Your task to perform on an android device: install app "Walmart Shopping & Grocery" Image 0: 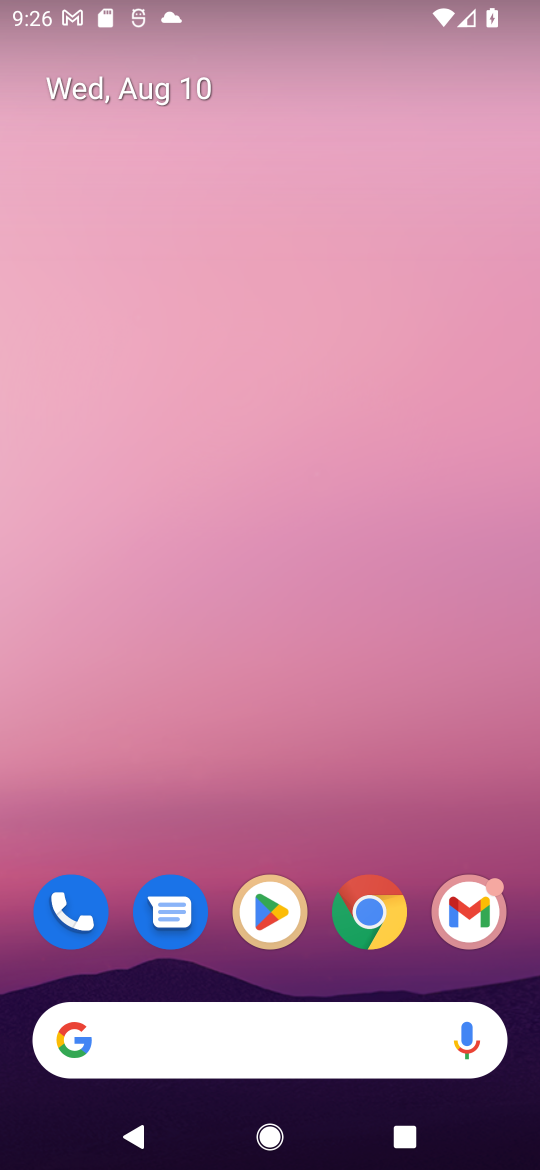
Step 0: drag from (526, 959) to (205, 44)
Your task to perform on an android device: install app "Walmart Shopping & Grocery" Image 1: 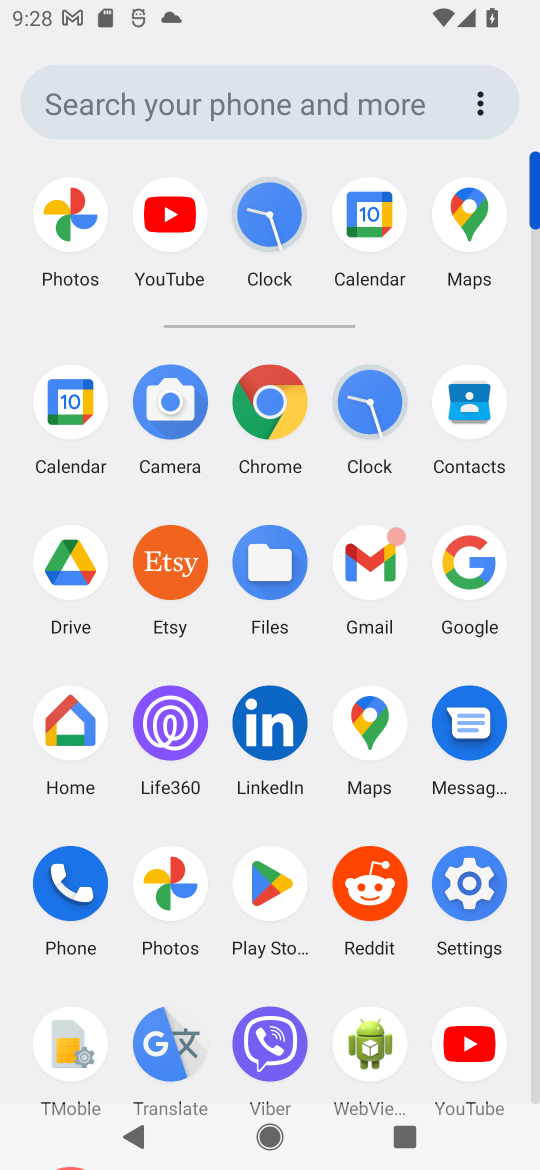
Step 1: click (258, 883)
Your task to perform on an android device: install app "Walmart Shopping & Grocery" Image 2: 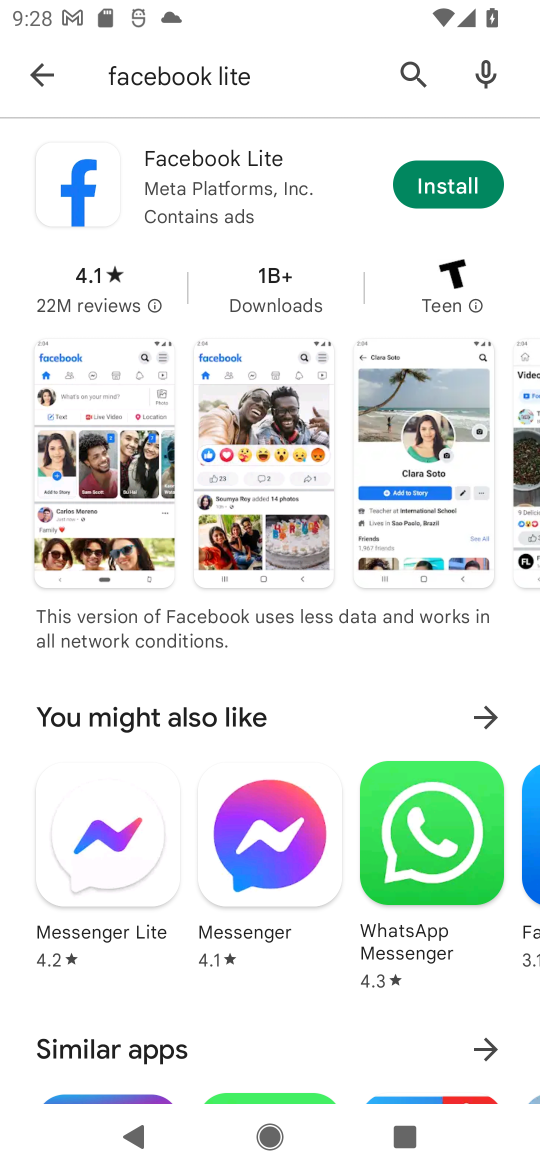
Step 2: press back button
Your task to perform on an android device: install app "Walmart Shopping & Grocery" Image 3: 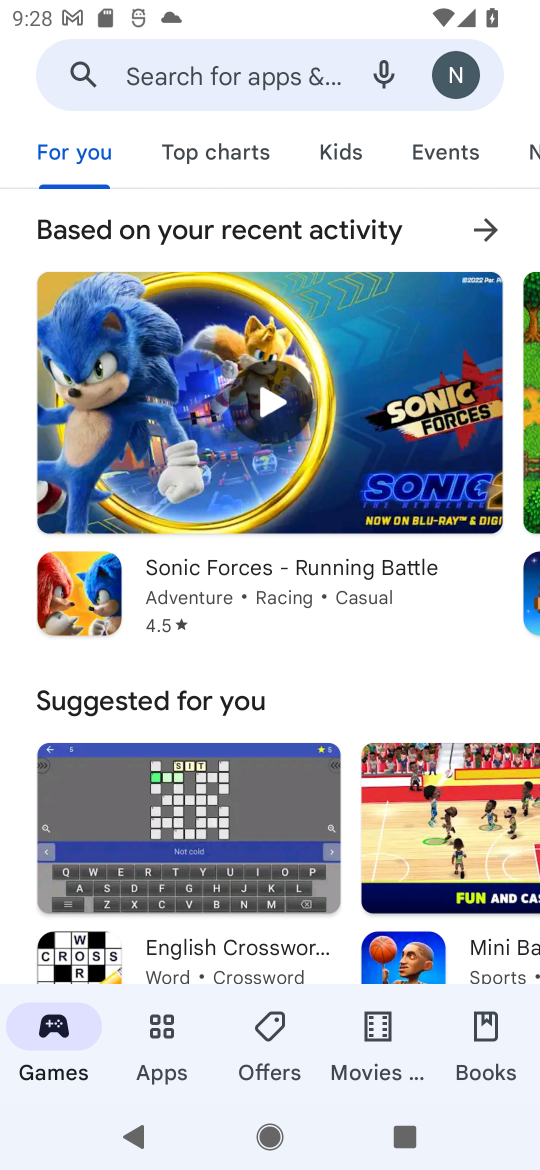
Step 3: click (174, 76)
Your task to perform on an android device: install app "Walmart Shopping & Grocery" Image 4: 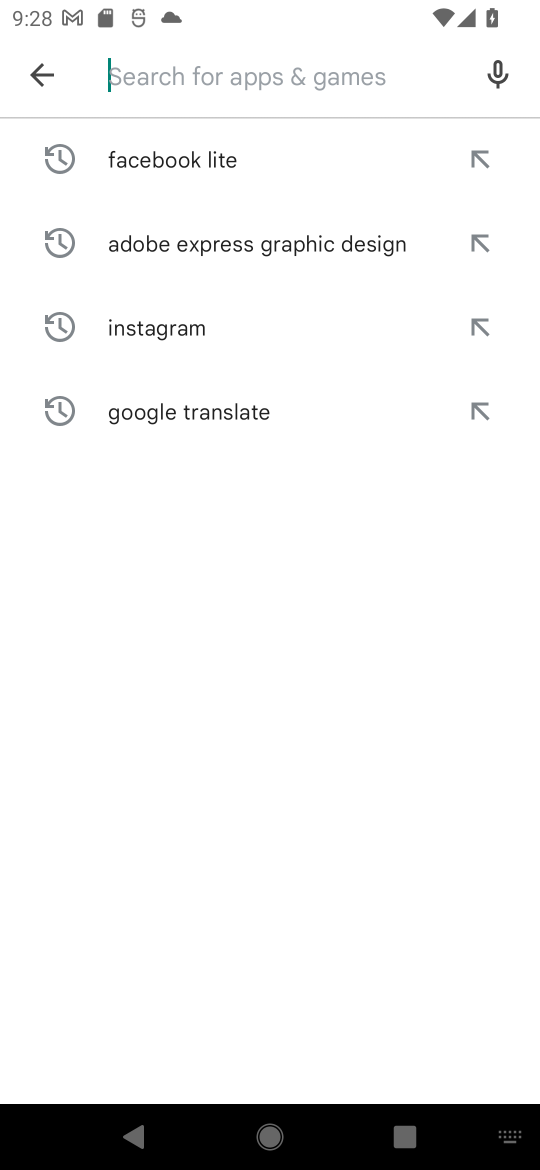
Step 4: type "Walmart Shopping & Grocery"
Your task to perform on an android device: install app "Walmart Shopping & Grocery" Image 5: 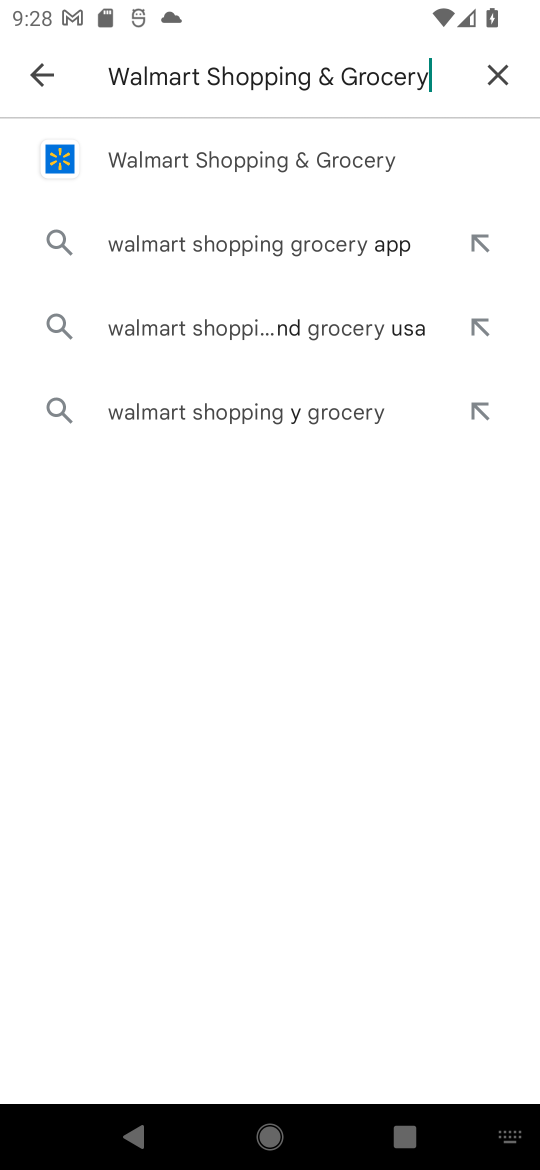
Step 5: click (272, 191)
Your task to perform on an android device: install app "Walmart Shopping & Grocery" Image 6: 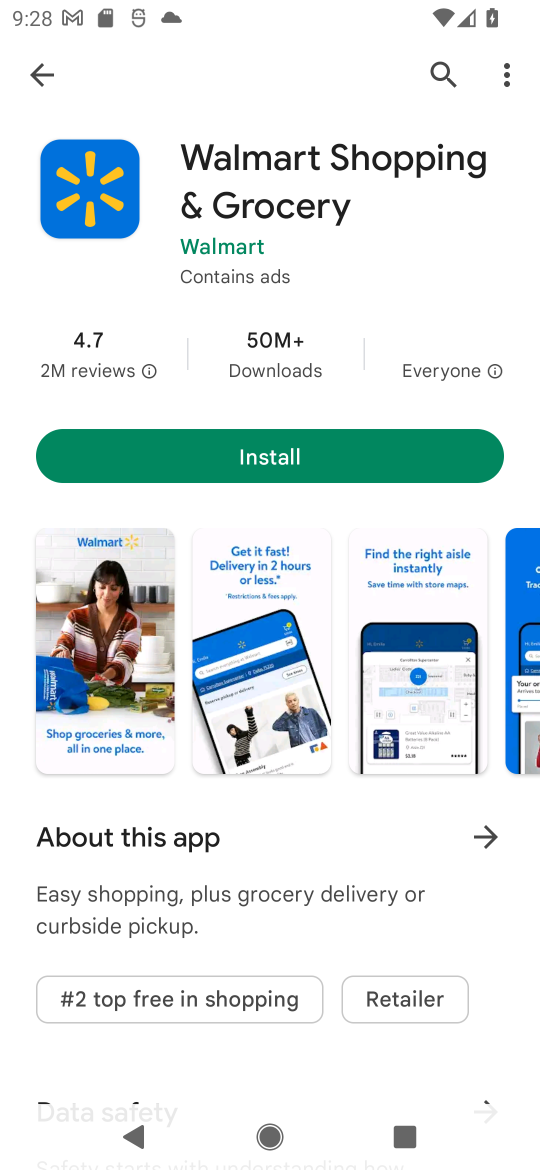
Step 6: click (246, 464)
Your task to perform on an android device: install app "Walmart Shopping & Grocery" Image 7: 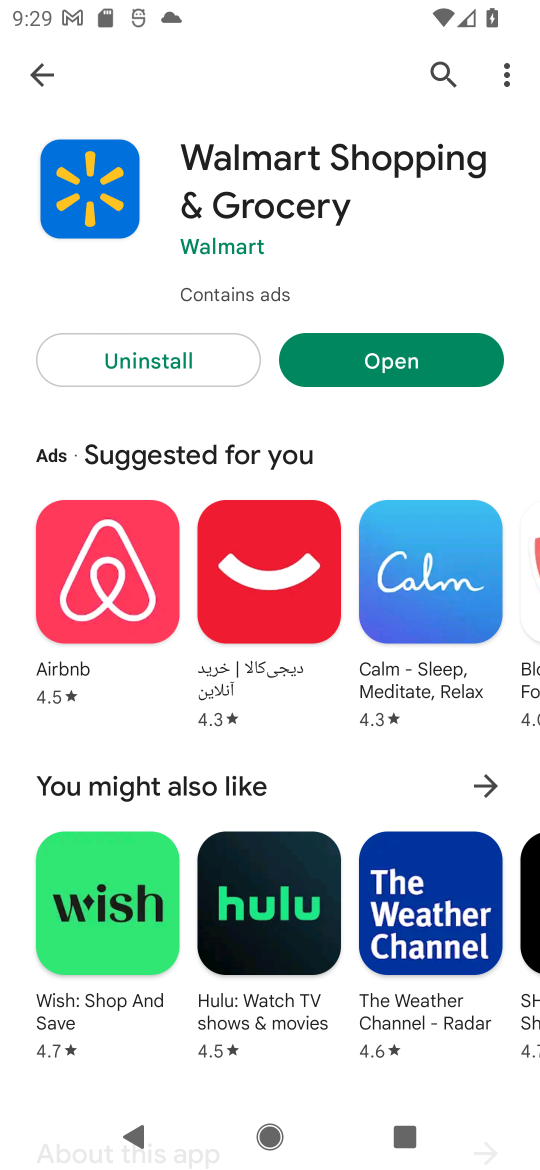
Step 7: task complete